Your task to perform on an android device: Turn on the flashlight Image 0: 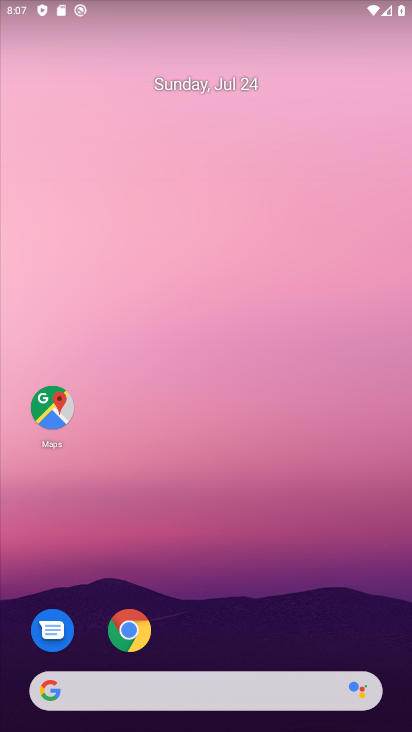
Step 0: drag from (281, 621) to (276, 10)
Your task to perform on an android device: Turn on the flashlight Image 1: 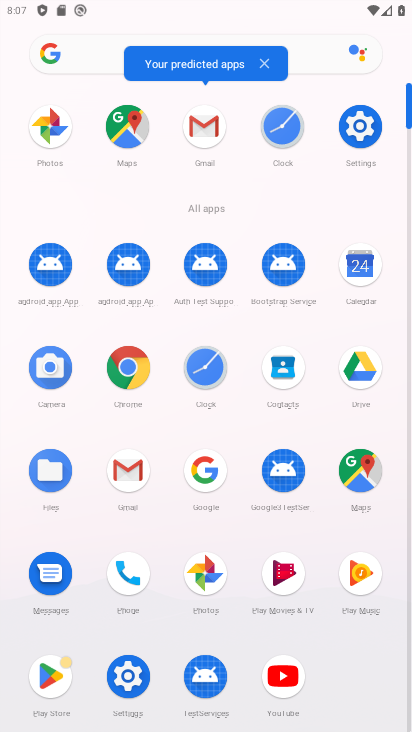
Step 1: click (362, 122)
Your task to perform on an android device: Turn on the flashlight Image 2: 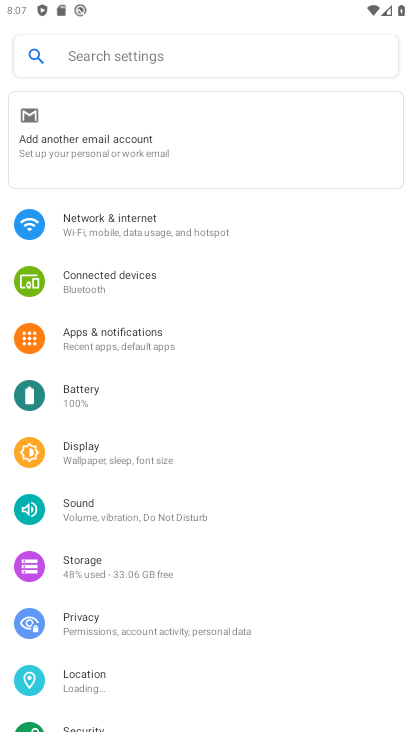
Step 2: task complete